Your task to perform on an android device: allow cookies in the chrome app Image 0: 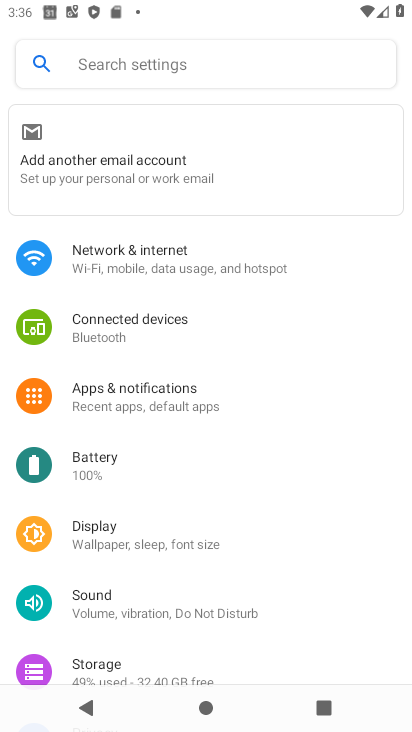
Step 0: press home button
Your task to perform on an android device: allow cookies in the chrome app Image 1: 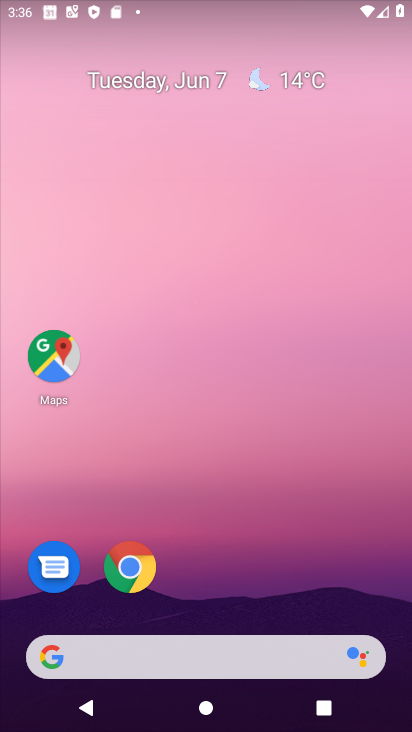
Step 1: click (133, 565)
Your task to perform on an android device: allow cookies in the chrome app Image 2: 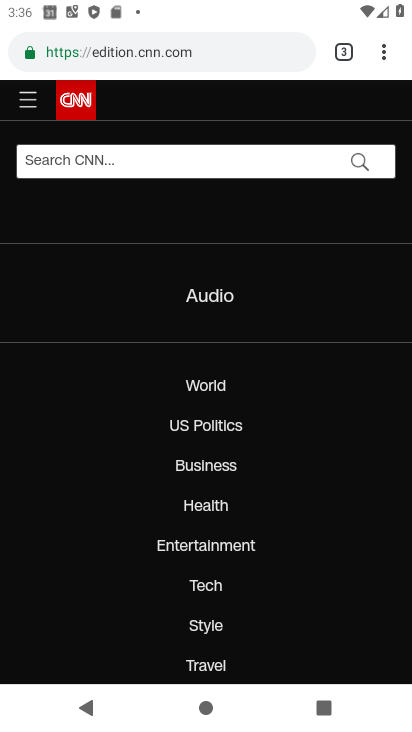
Step 2: click (378, 53)
Your task to perform on an android device: allow cookies in the chrome app Image 3: 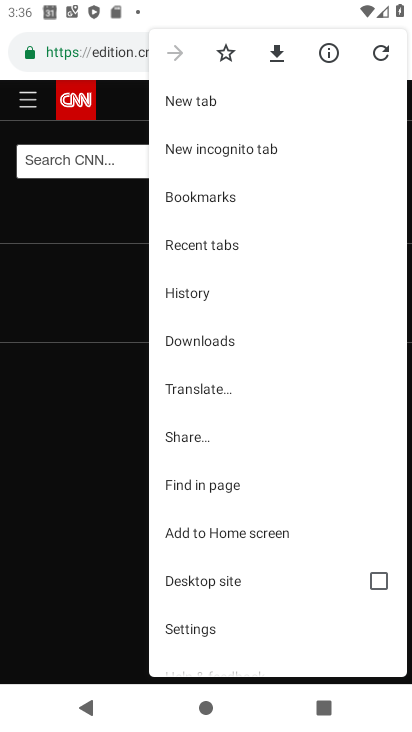
Step 3: drag from (246, 590) to (277, 331)
Your task to perform on an android device: allow cookies in the chrome app Image 4: 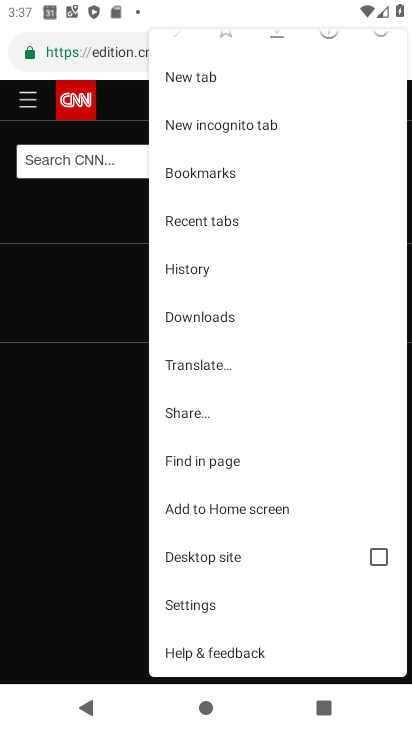
Step 4: click (214, 600)
Your task to perform on an android device: allow cookies in the chrome app Image 5: 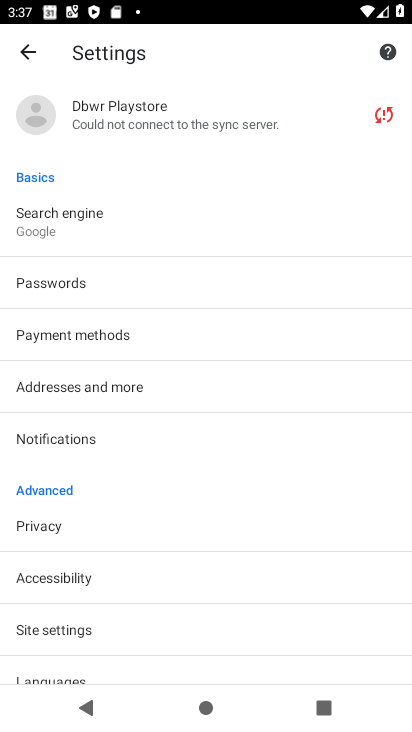
Step 5: click (104, 618)
Your task to perform on an android device: allow cookies in the chrome app Image 6: 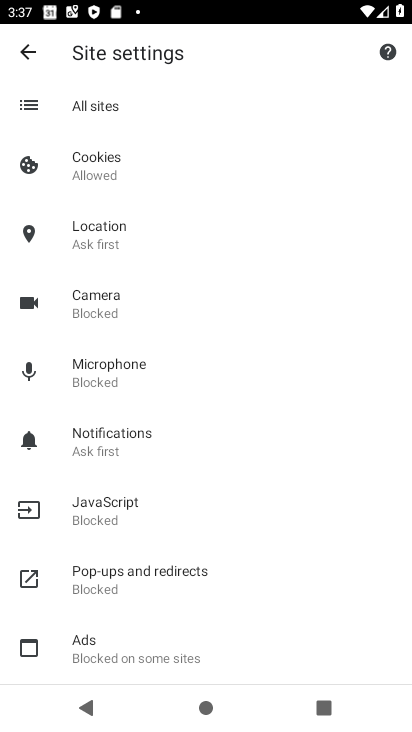
Step 6: click (129, 150)
Your task to perform on an android device: allow cookies in the chrome app Image 7: 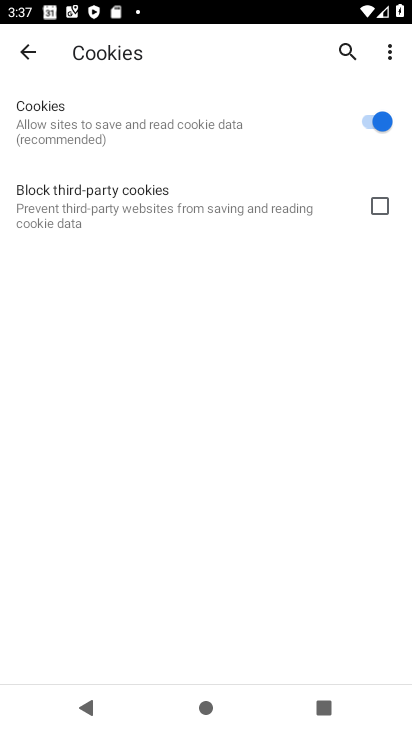
Step 7: task complete